Your task to perform on an android device: visit the assistant section in the google photos Image 0: 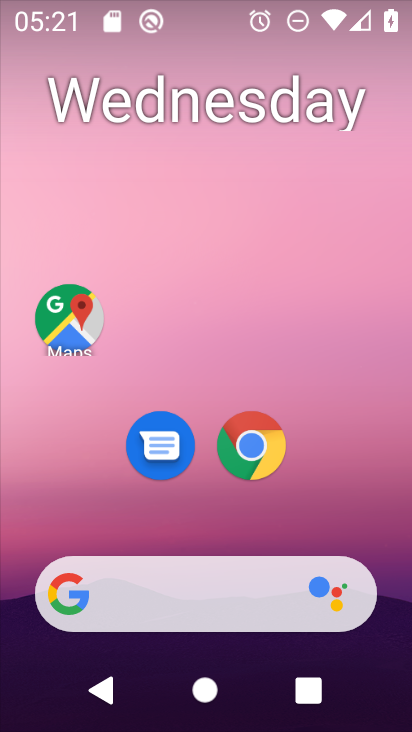
Step 0: drag from (240, 537) to (247, 189)
Your task to perform on an android device: visit the assistant section in the google photos Image 1: 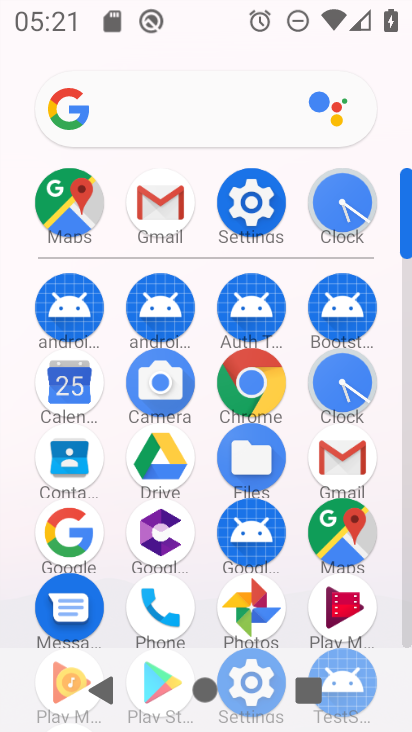
Step 1: click (249, 609)
Your task to perform on an android device: visit the assistant section in the google photos Image 2: 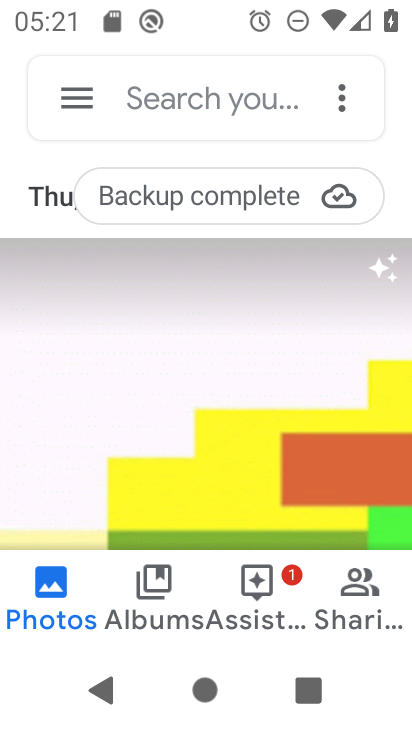
Step 2: click (249, 609)
Your task to perform on an android device: visit the assistant section in the google photos Image 3: 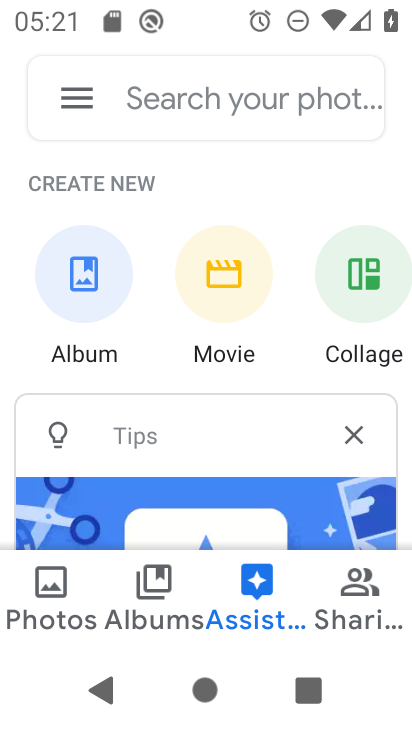
Step 3: task complete